Your task to perform on an android device: Is it going to rain this weekend? Image 0: 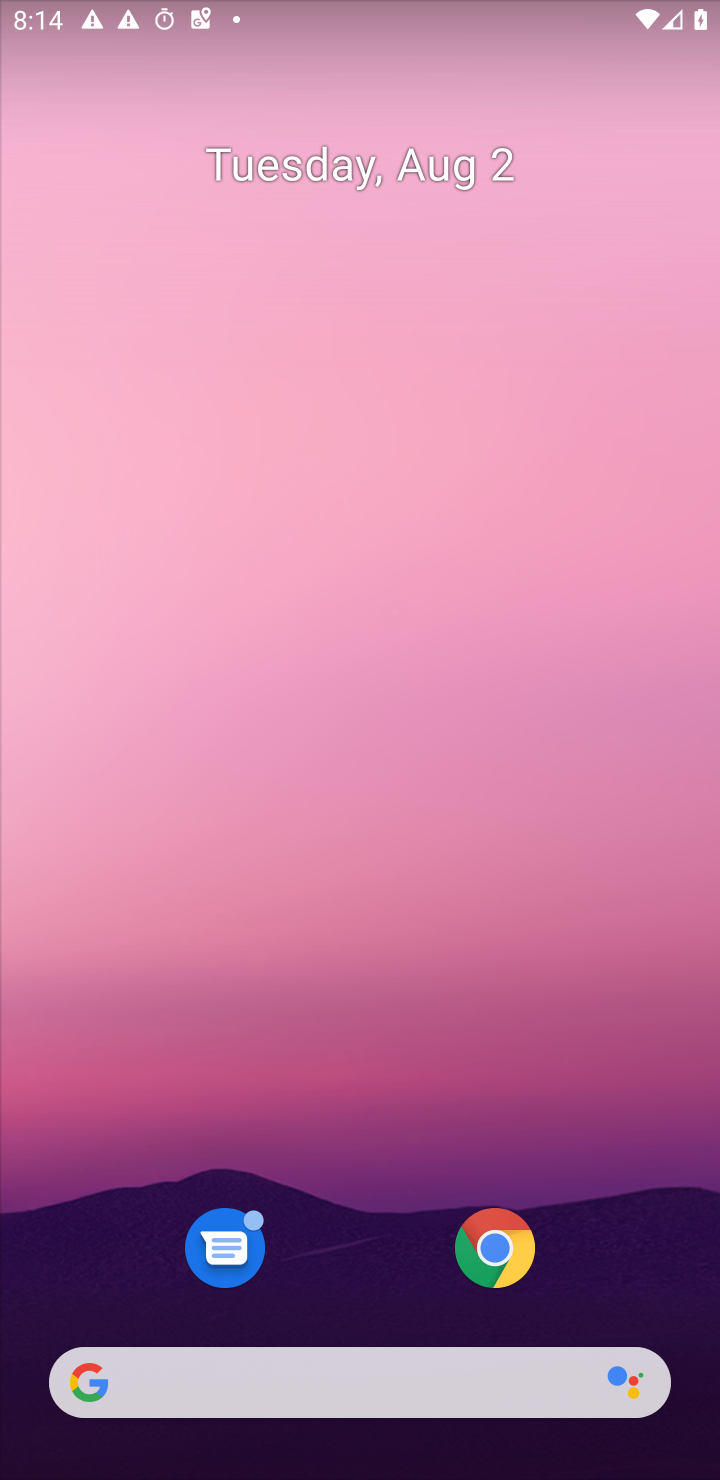
Step 0: drag from (362, 1229) to (569, 238)
Your task to perform on an android device: Is it going to rain this weekend? Image 1: 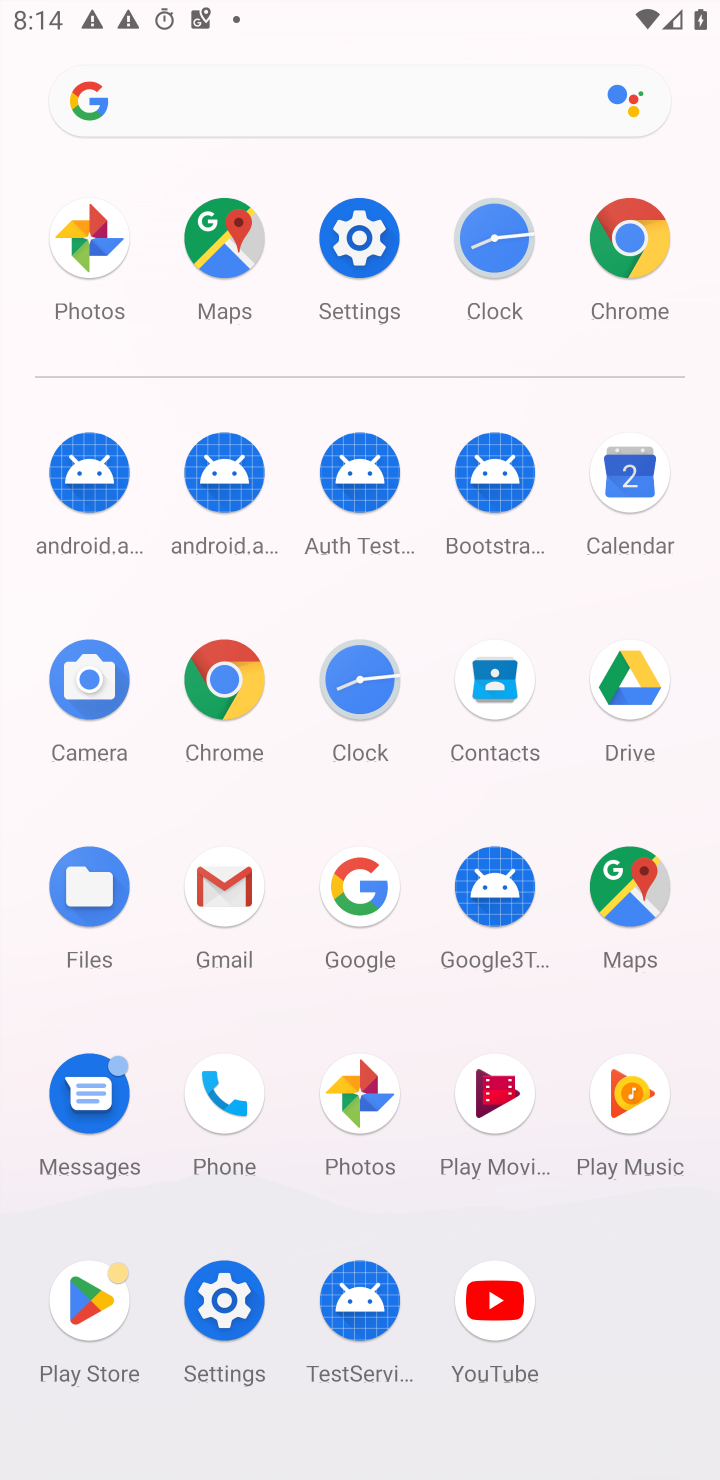
Step 1: click (411, 117)
Your task to perform on an android device: Is it going to rain this weekend? Image 2: 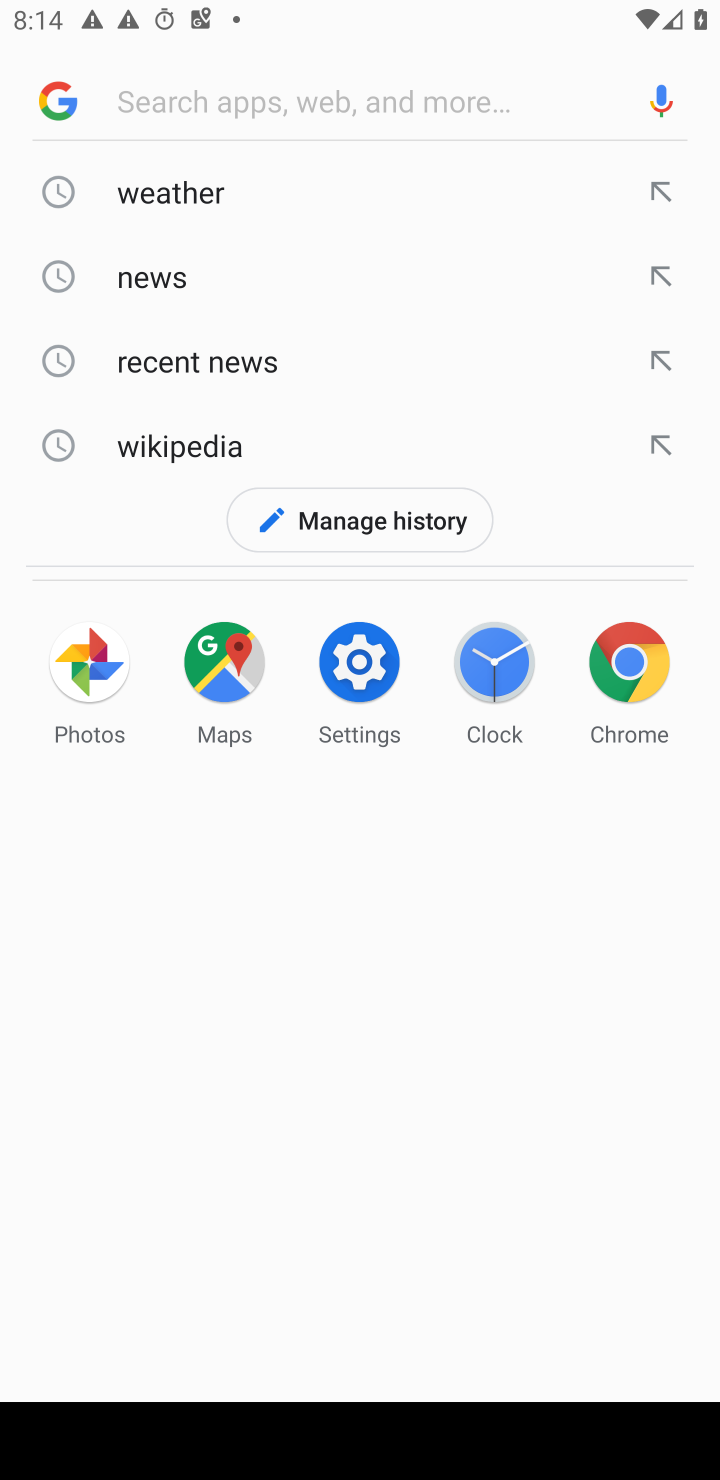
Step 2: type "Is it going to rain this weekend?"
Your task to perform on an android device: Is it going to rain this weekend? Image 3: 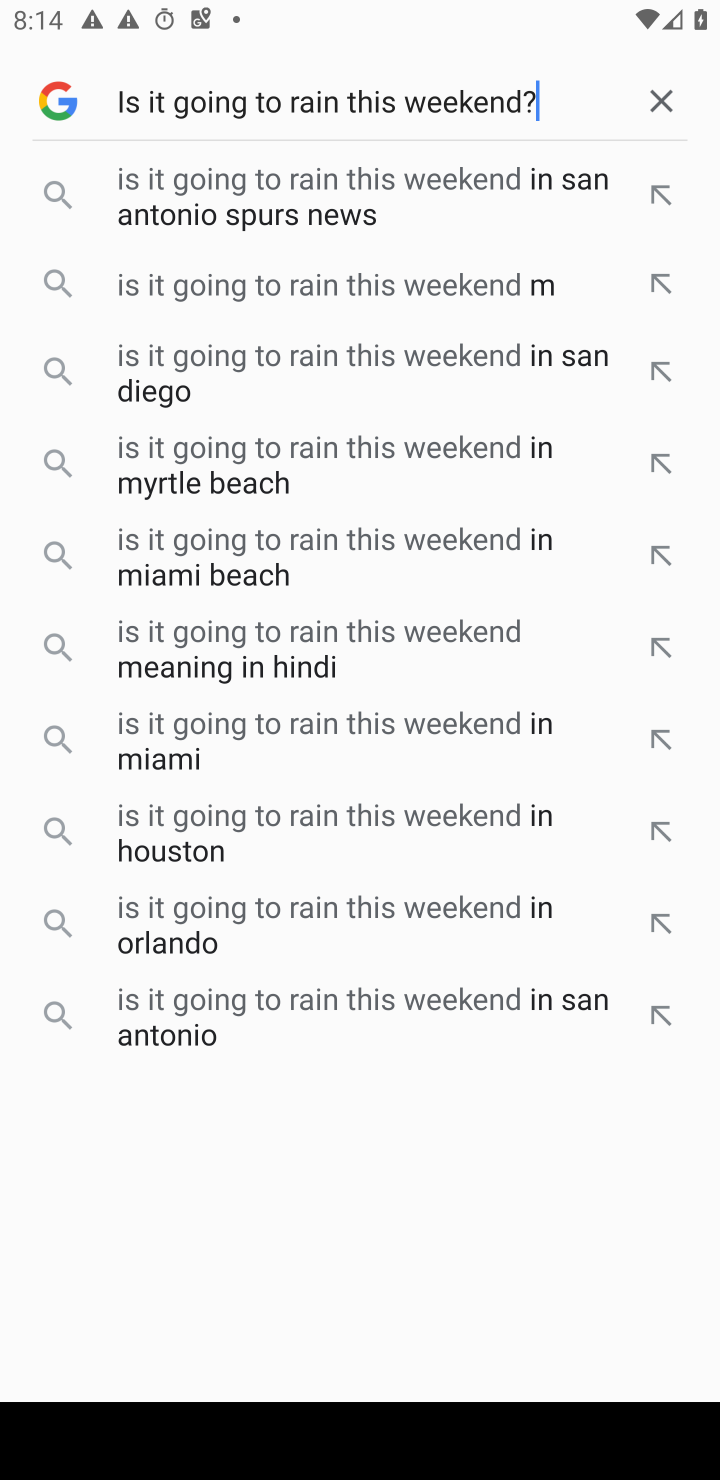
Step 3: type "Is it going to rain this weekend?"
Your task to perform on an android device: Is it going to rain this weekend? Image 4: 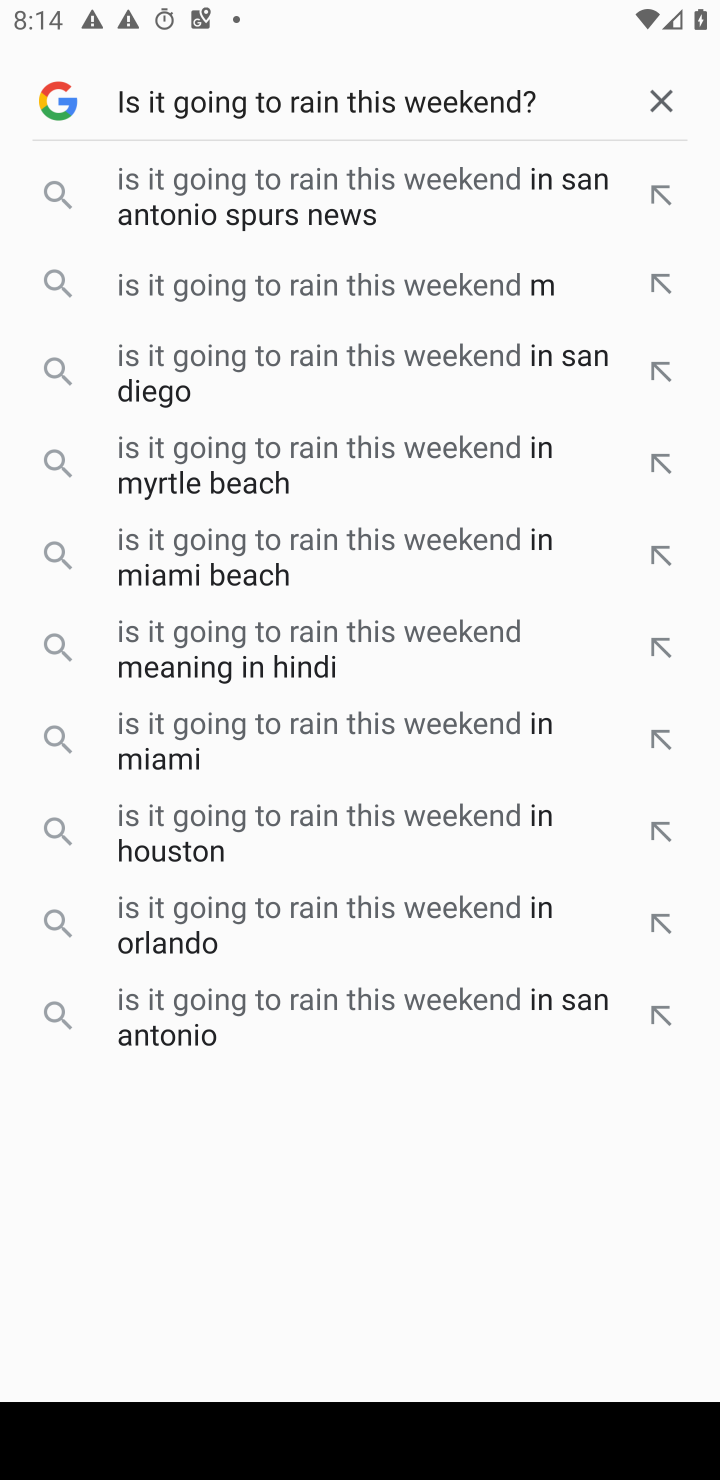
Step 4: click (505, 171)
Your task to perform on an android device: Is it going to rain this weekend? Image 5: 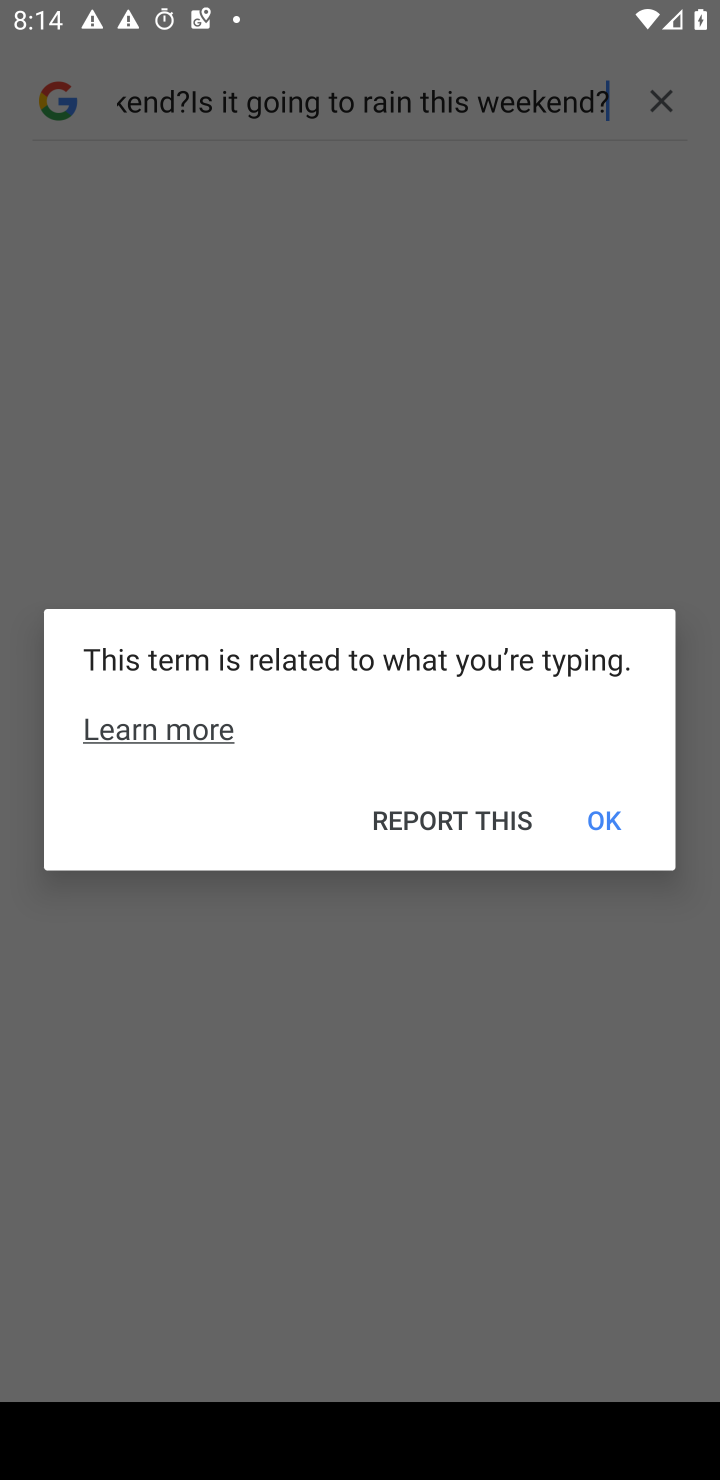
Step 5: drag from (422, 1325) to (525, 660)
Your task to perform on an android device: Is it going to rain this weekend? Image 6: 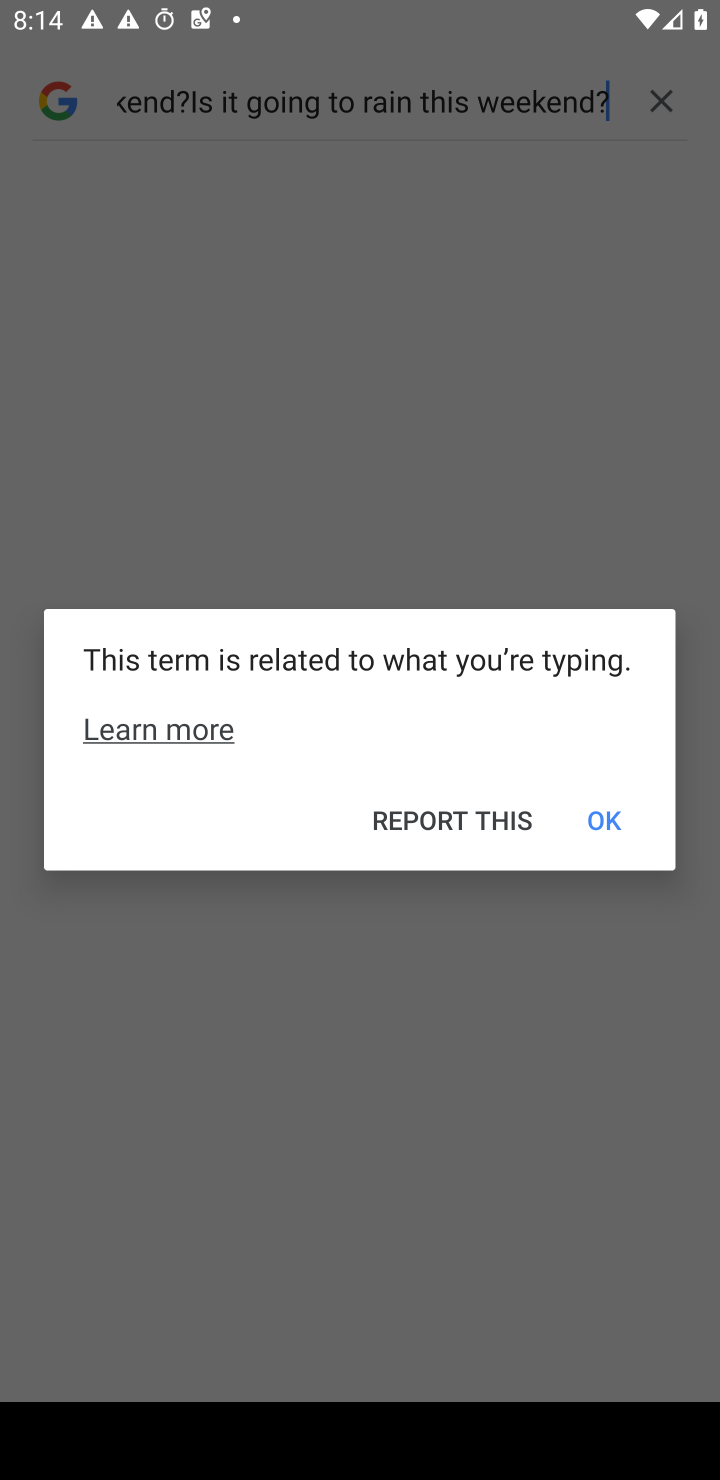
Step 6: press home button
Your task to perform on an android device: Is it going to rain this weekend? Image 7: 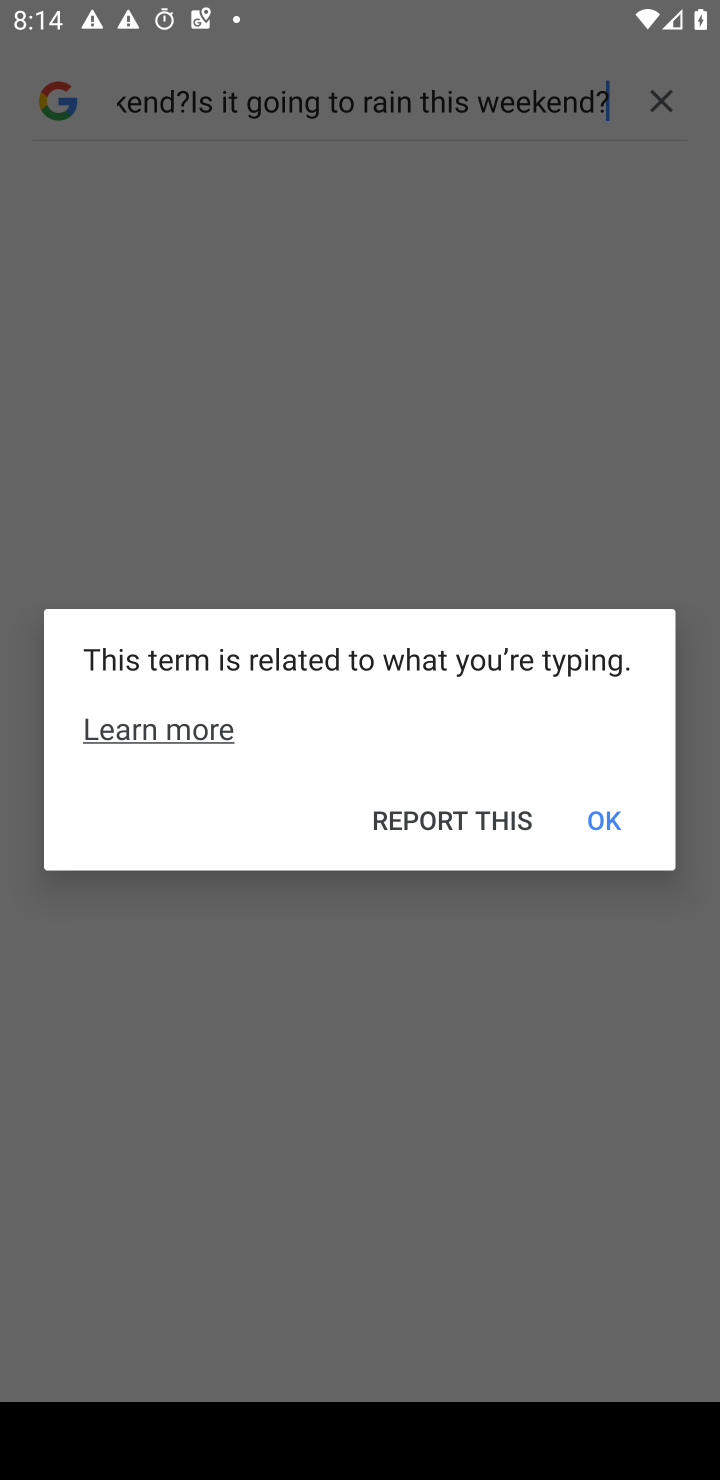
Step 7: press home button
Your task to perform on an android device: Is it going to rain this weekend? Image 8: 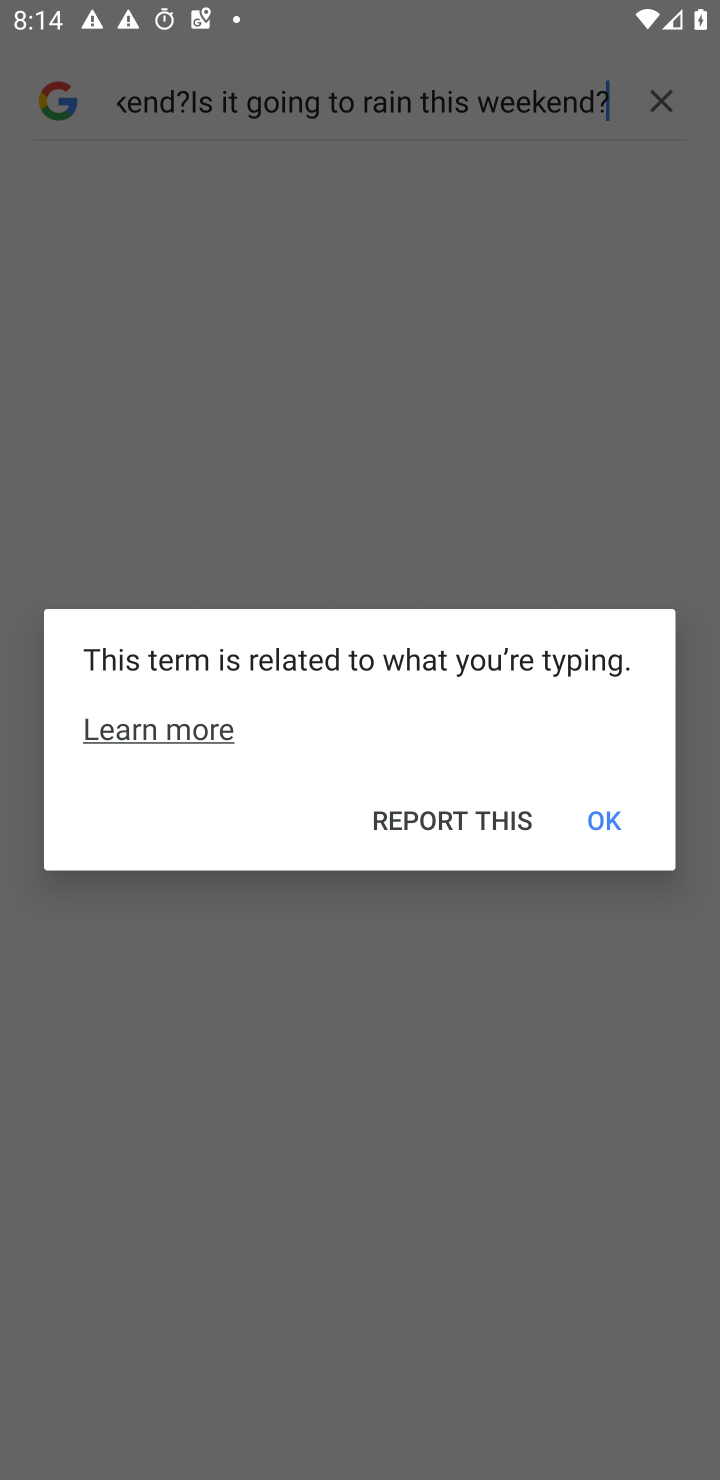
Step 8: click (435, 423)
Your task to perform on an android device: Is it going to rain this weekend? Image 9: 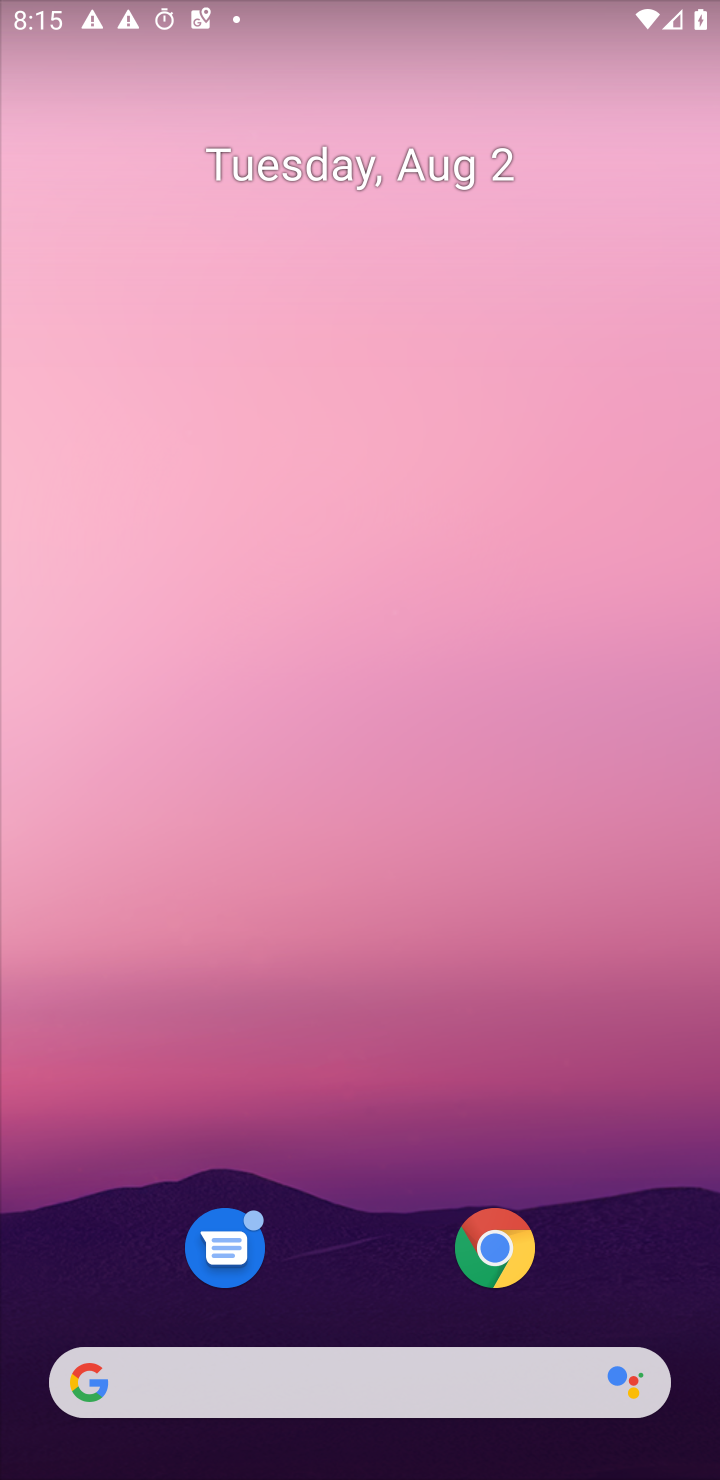
Step 9: drag from (340, 1201) to (465, 514)
Your task to perform on an android device: Is it going to rain this weekend? Image 10: 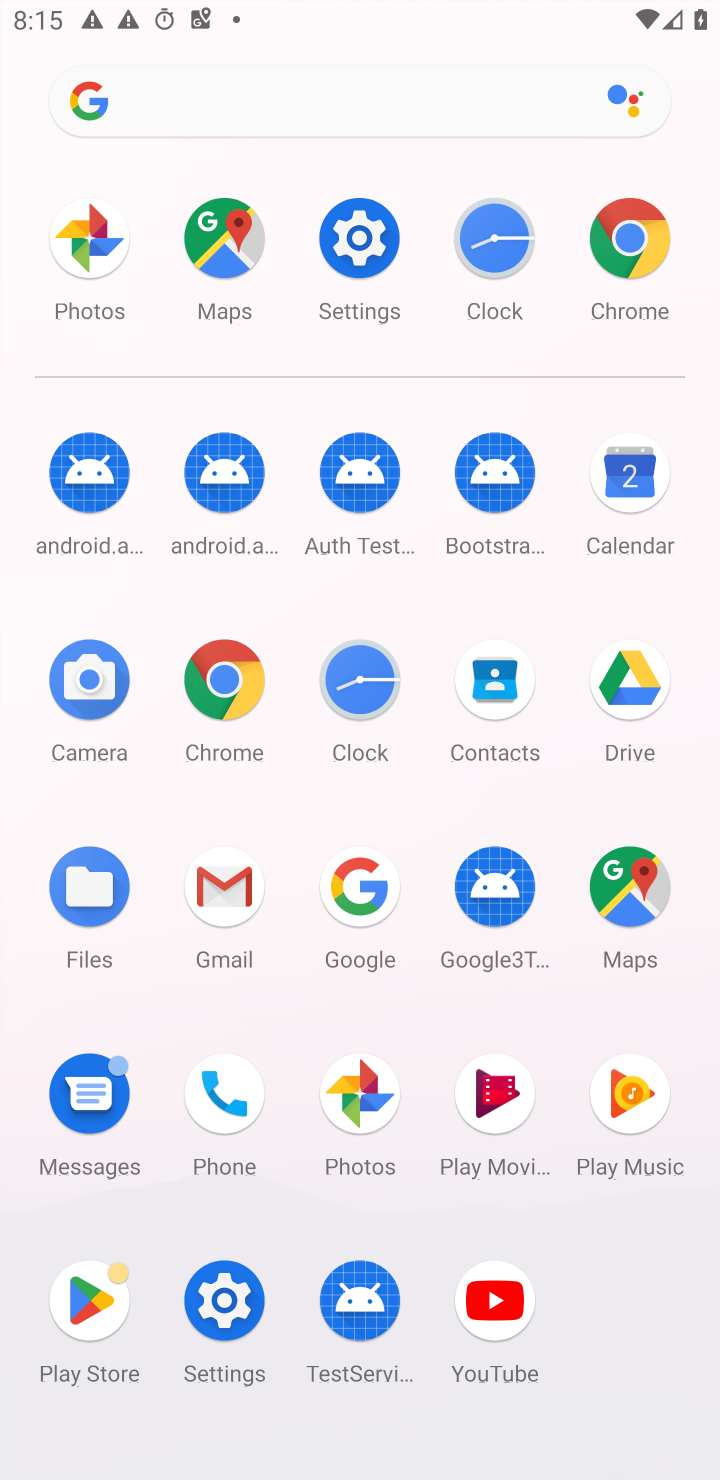
Step 10: drag from (277, 1213) to (368, 618)
Your task to perform on an android device: Is it going to rain this weekend? Image 11: 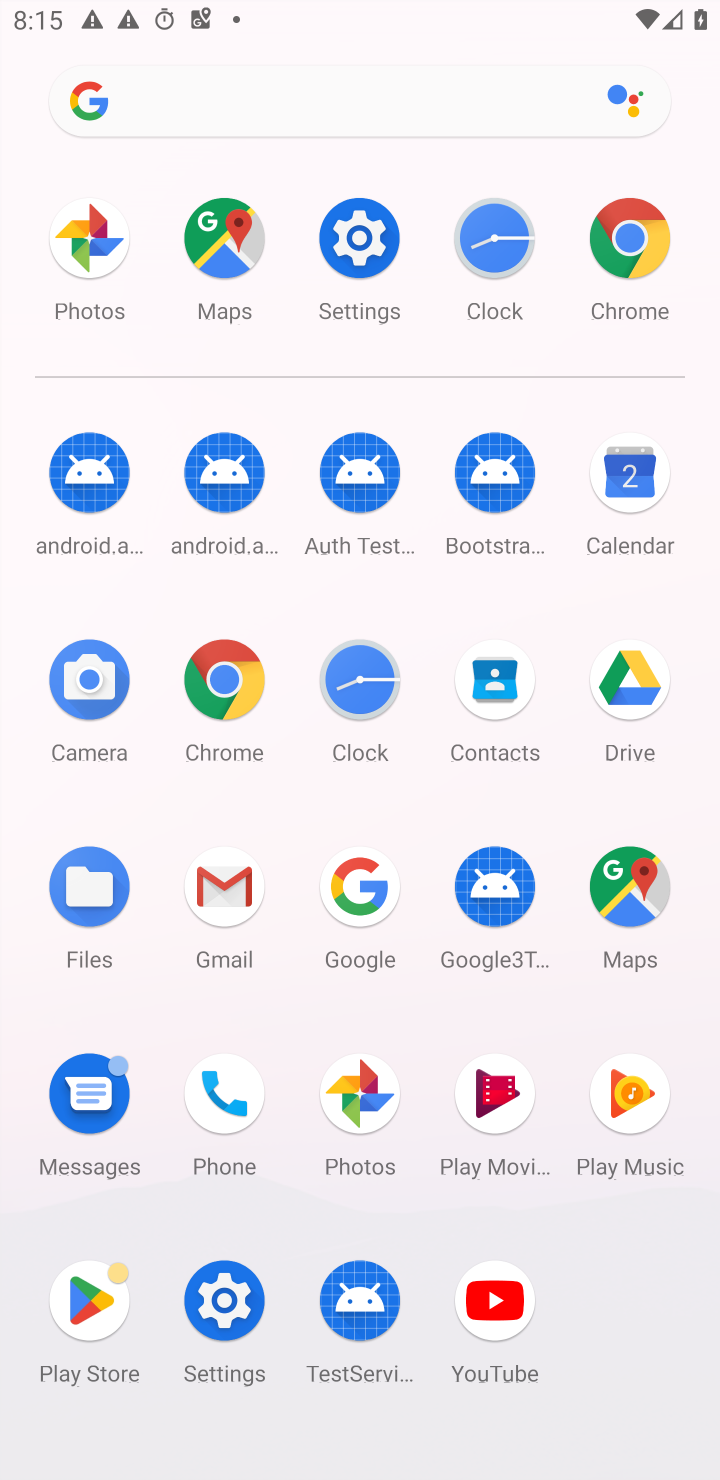
Step 11: drag from (315, 1215) to (293, 703)
Your task to perform on an android device: Is it going to rain this weekend? Image 12: 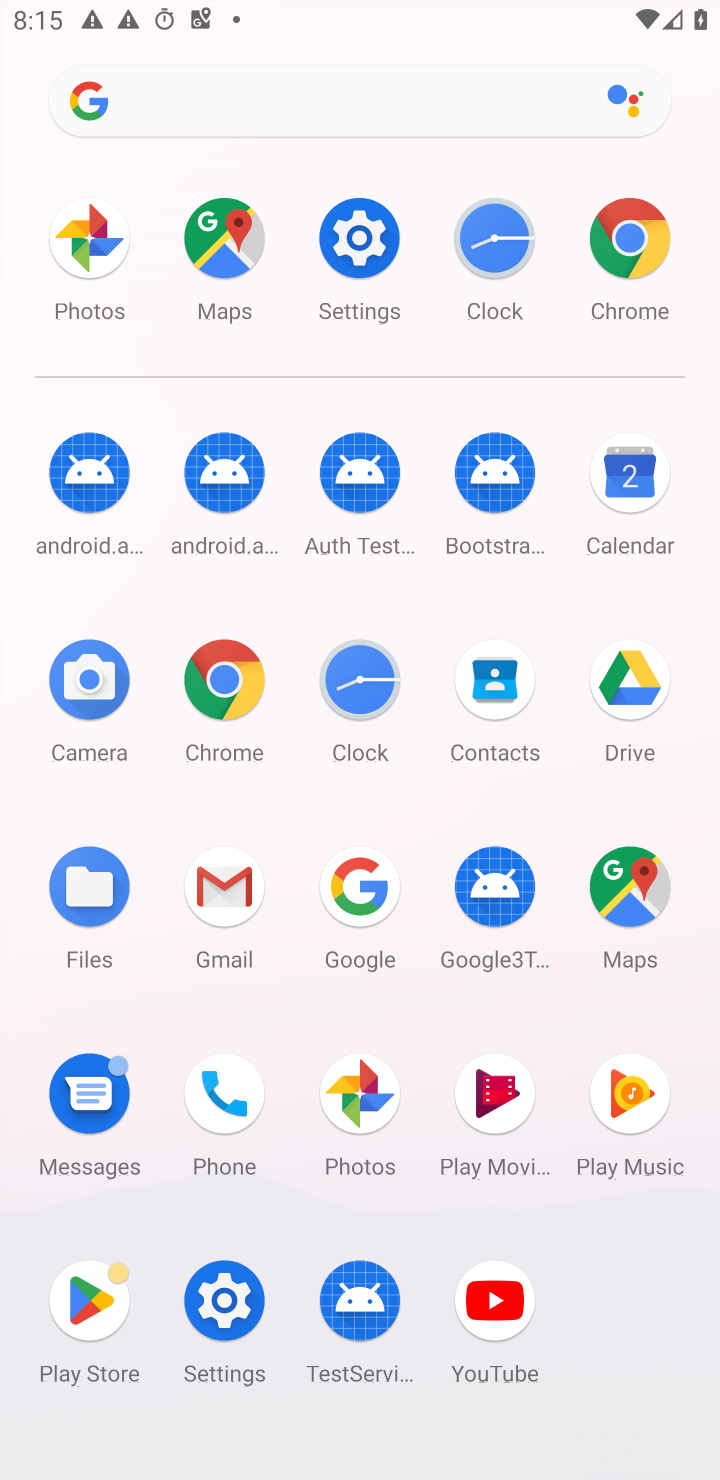
Step 12: drag from (287, 1086) to (275, 437)
Your task to perform on an android device: Is it going to rain this weekend? Image 13: 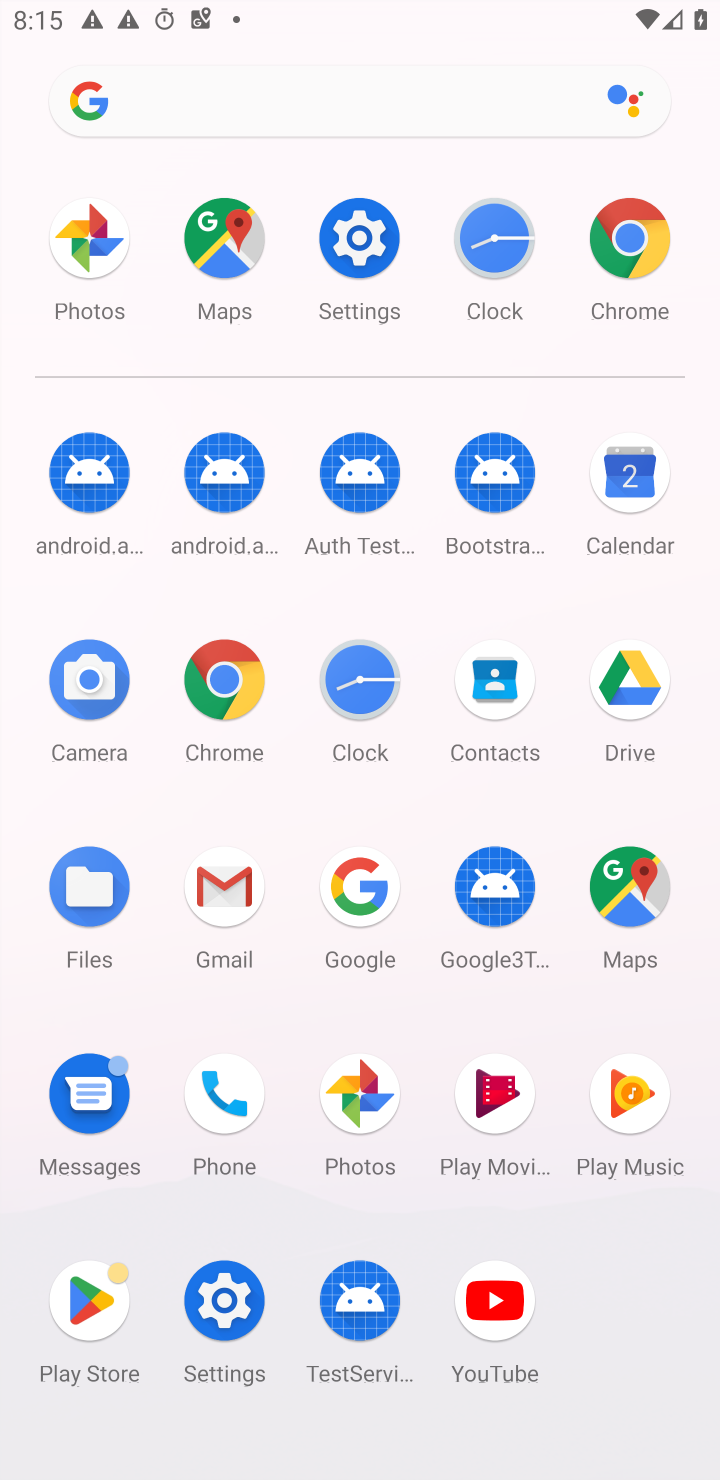
Step 13: drag from (311, 1110) to (338, 502)
Your task to perform on an android device: Is it going to rain this weekend? Image 14: 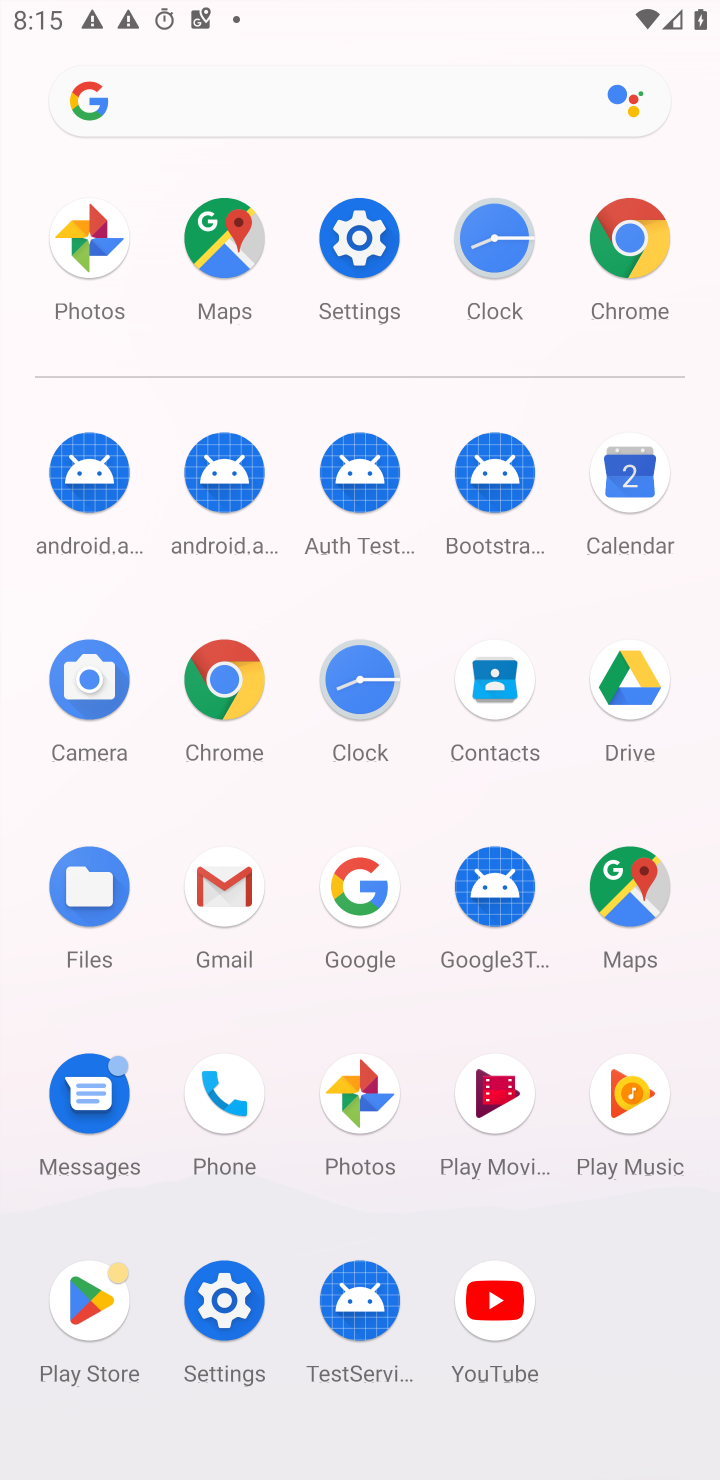
Step 14: click (632, 464)
Your task to perform on an android device: Is it going to rain this weekend? Image 15: 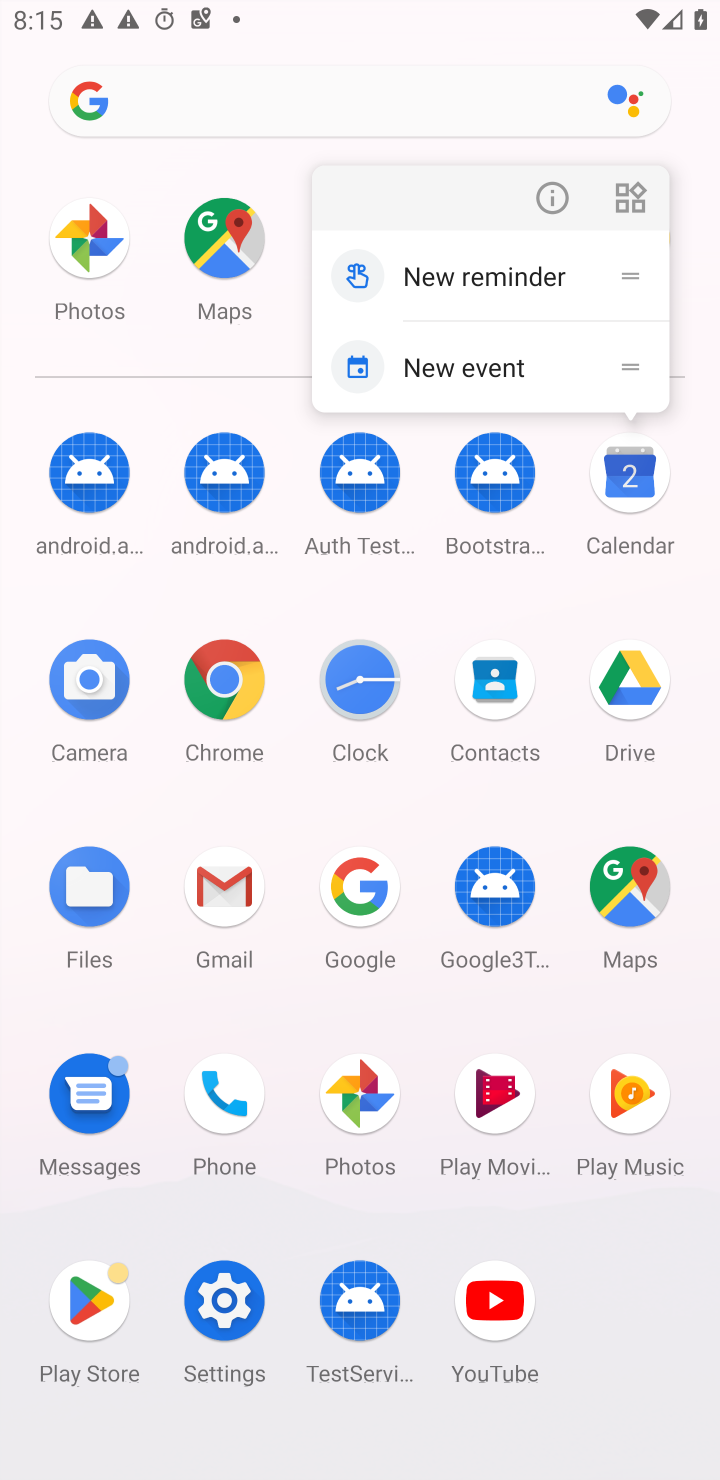
Step 15: click (557, 186)
Your task to perform on an android device: Is it going to rain this weekend? Image 16: 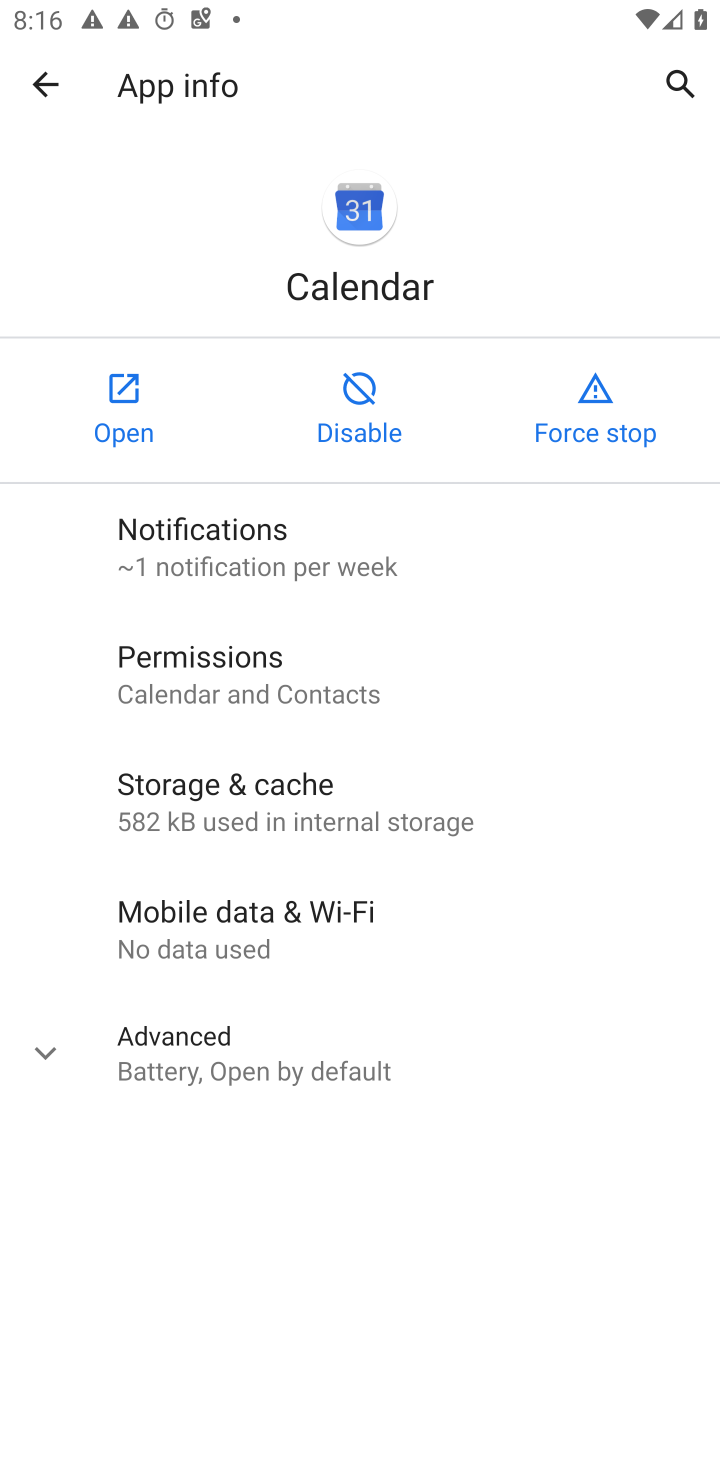
Step 16: click (127, 388)
Your task to perform on an android device: Is it going to rain this weekend? Image 17: 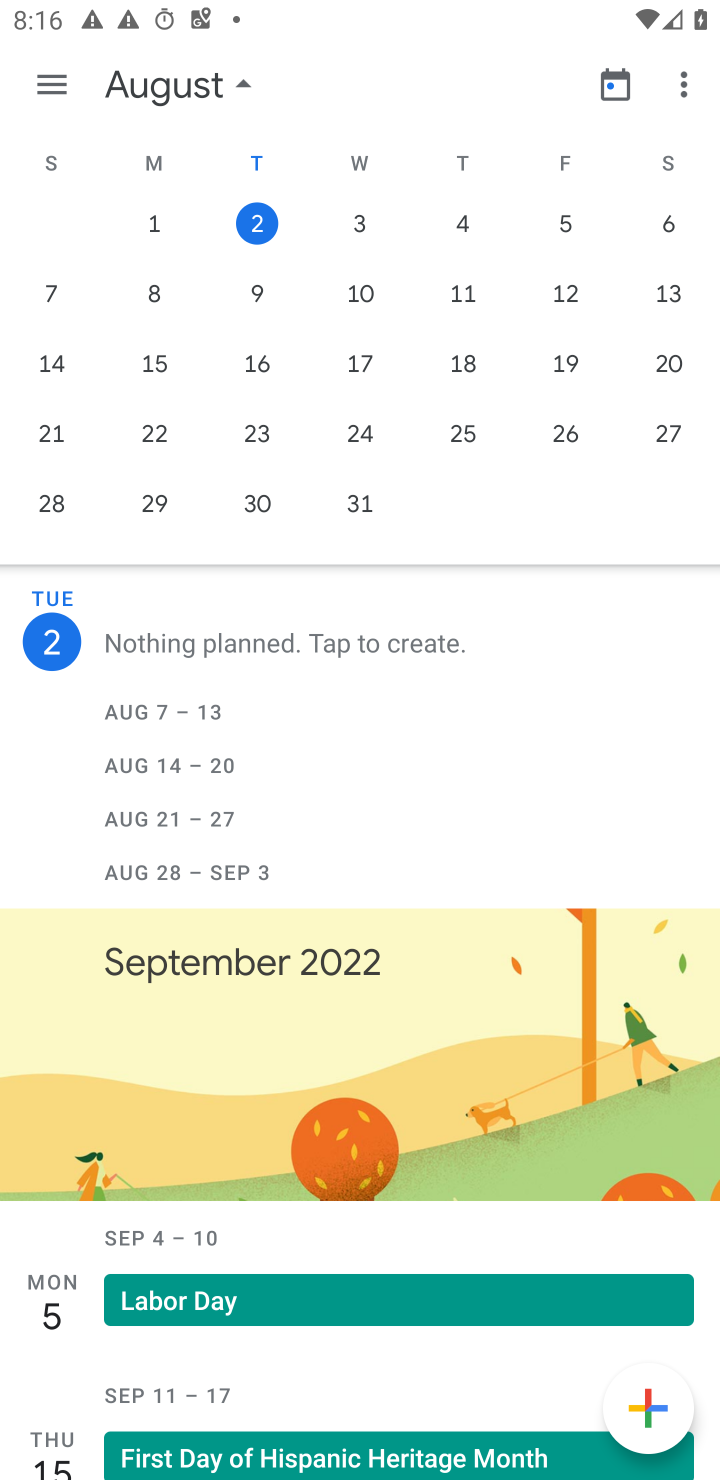
Step 17: press home button
Your task to perform on an android device: Is it going to rain this weekend? Image 18: 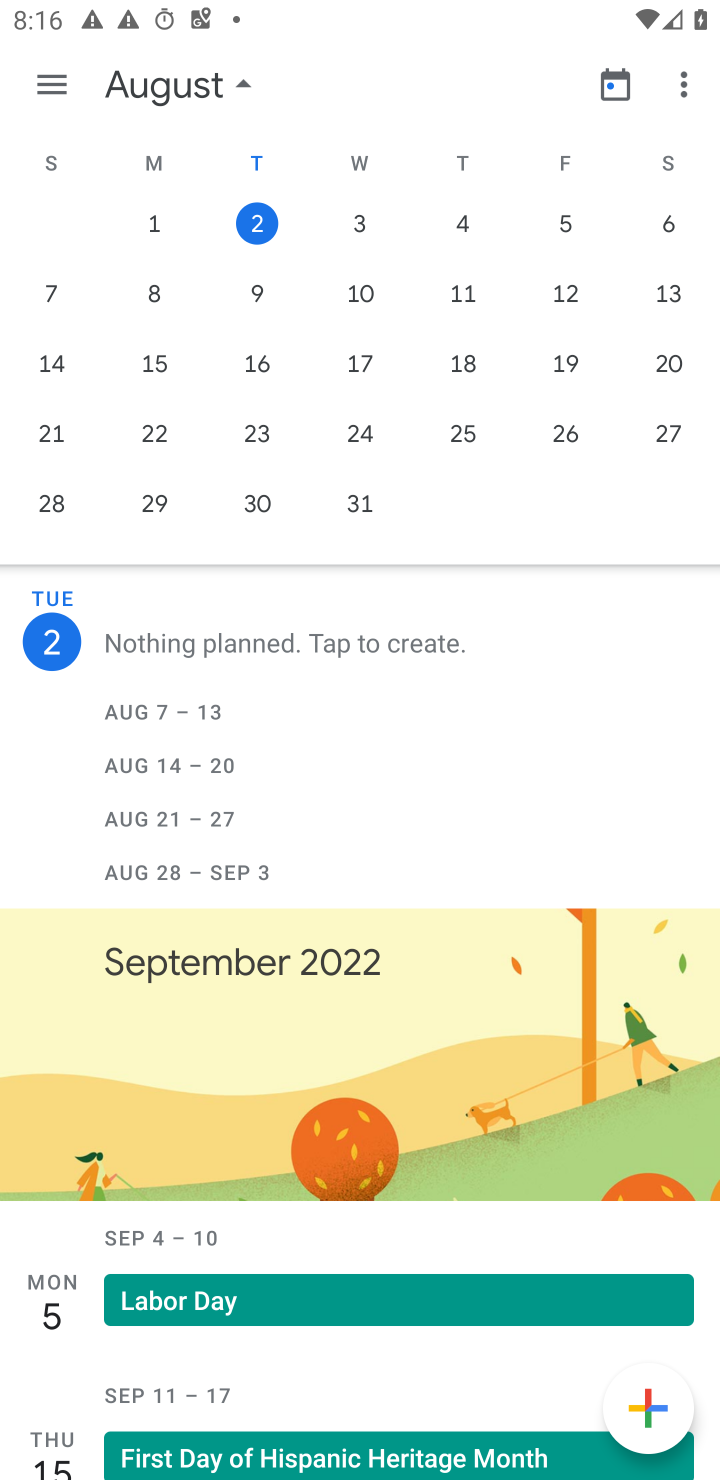
Step 18: drag from (423, 1215) to (434, 270)
Your task to perform on an android device: Is it going to rain this weekend? Image 19: 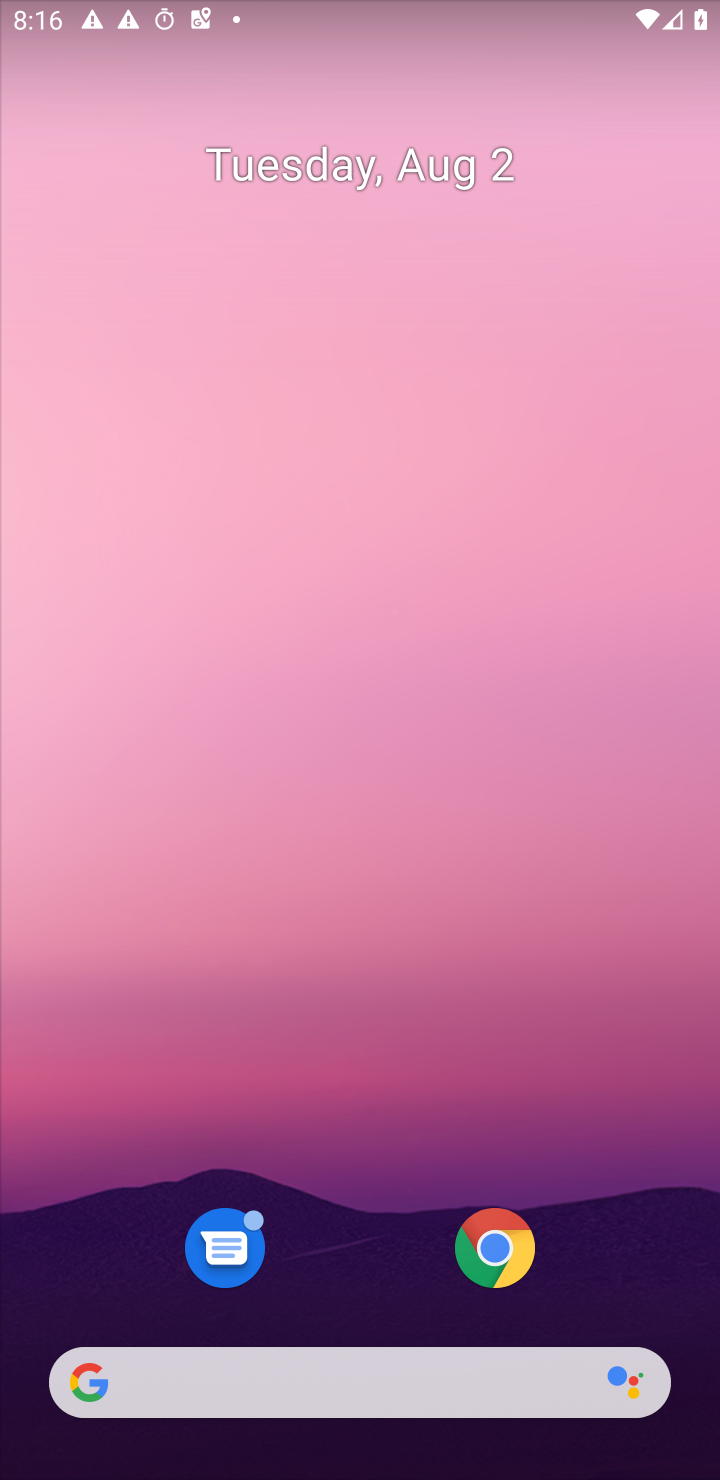
Step 19: click (350, 1376)
Your task to perform on an android device: Is it going to rain this weekend? Image 20: 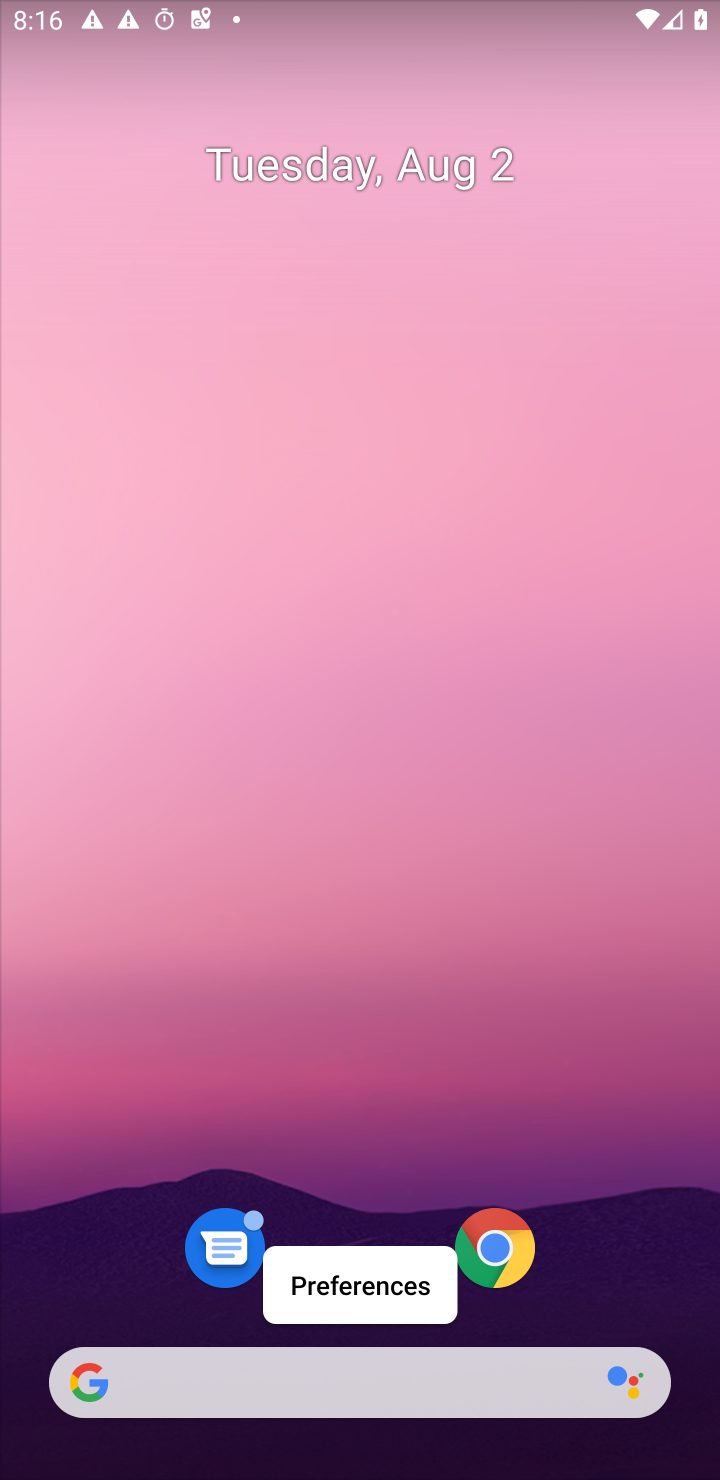
Step 20: click (177, 1389)
Your task to perform on an android device: Is it going to rain this weekend? Image 21: 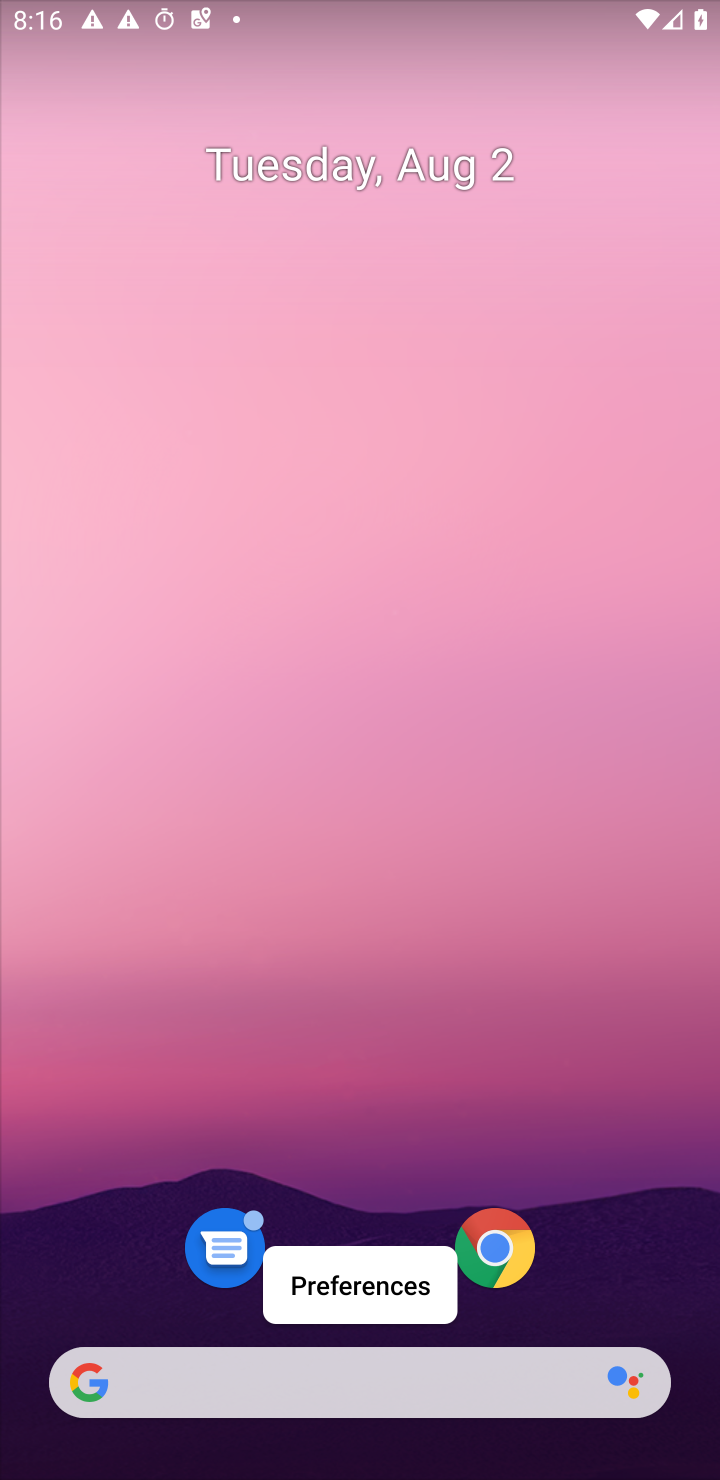
Step 21: click (248, 1382)
Your task to perform on an android device: Is it going to rain this weekend? Image 22: 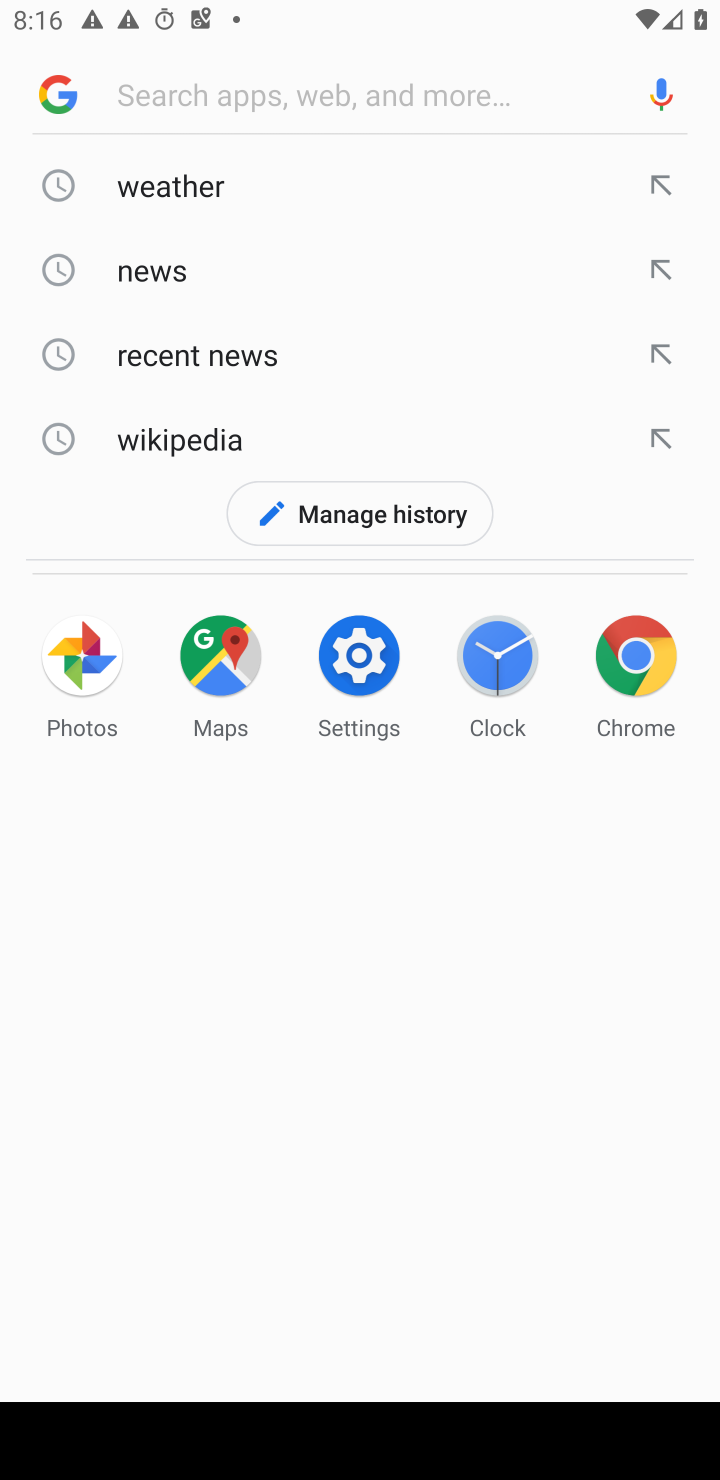
Step 22: type "Is it going to rain this weekend?"
Your task to perform on an android device: Is it going to rain this weekend? Image 23: 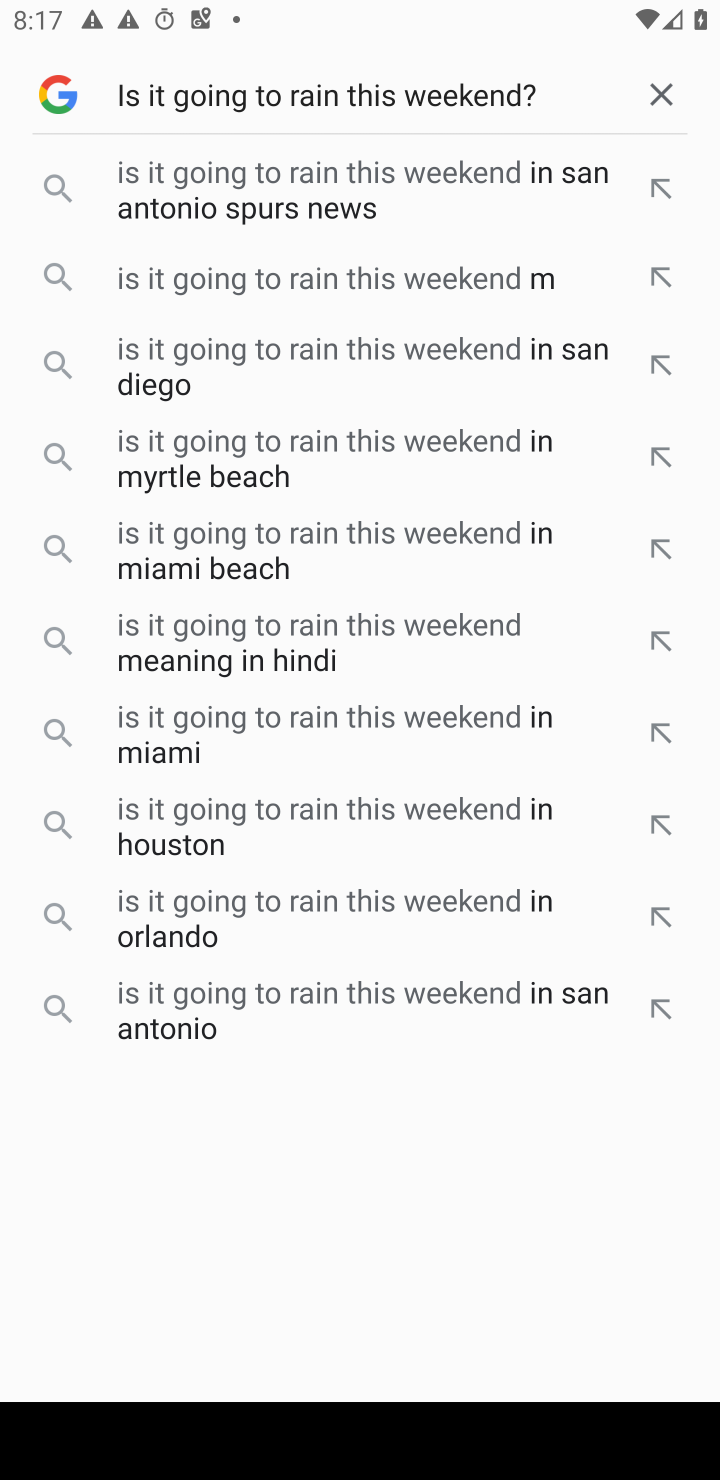
Step 23: click (241, 190)
Your task to perform on an android device: Is it going to rain this weekend? Image 24: 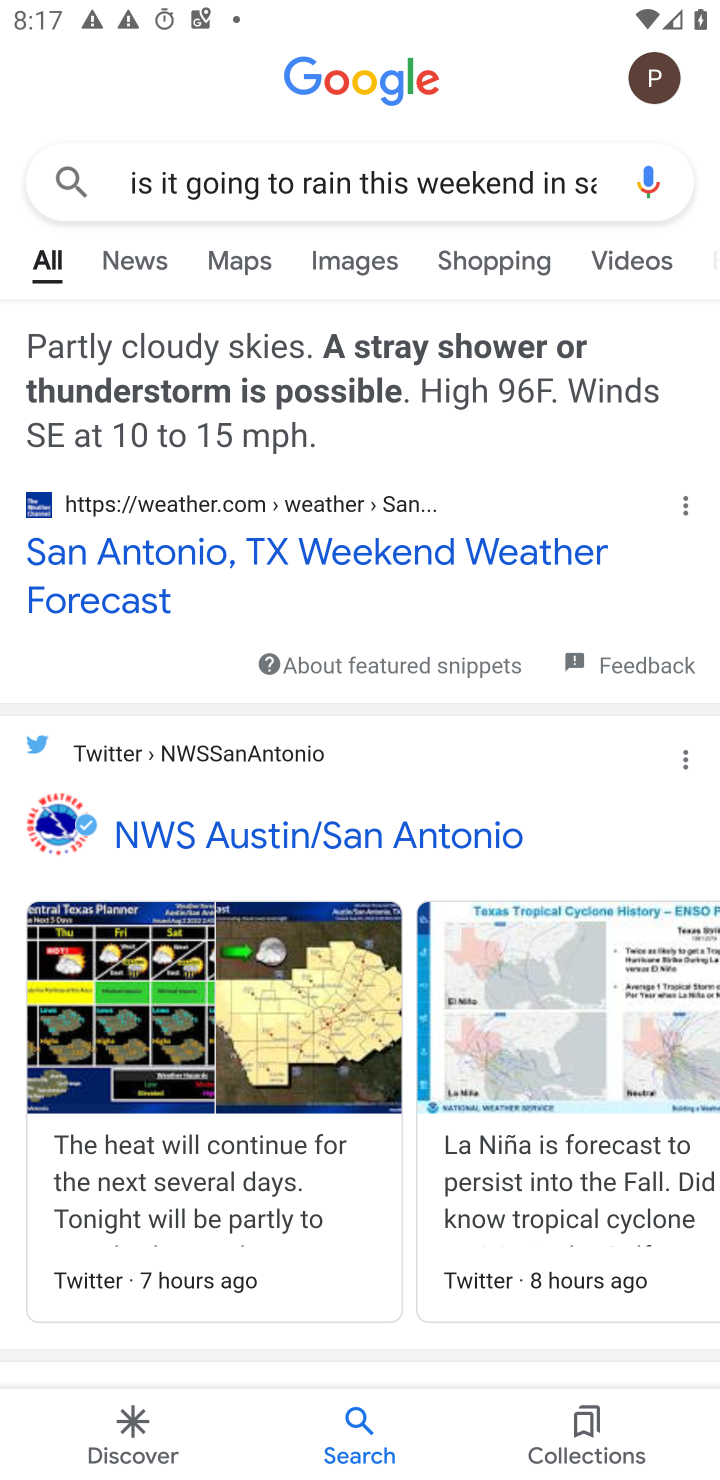
Step 24: task complete